Your task to perform on an android device: turn on improve location accuracy Image 0: 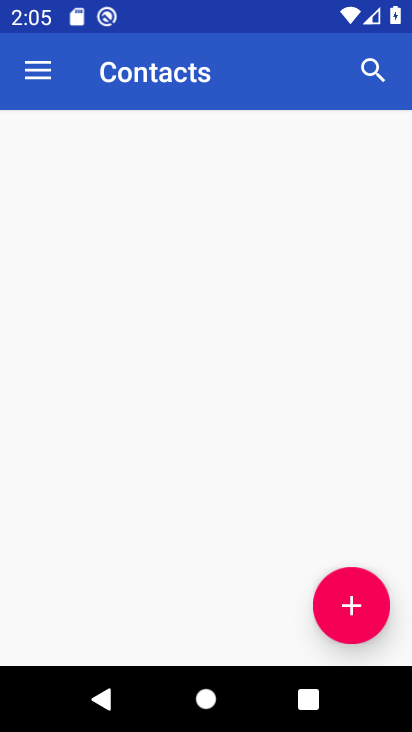
Step 0: press home button
Your task to perform on an android device: turn on improve location accuracy Image 1: 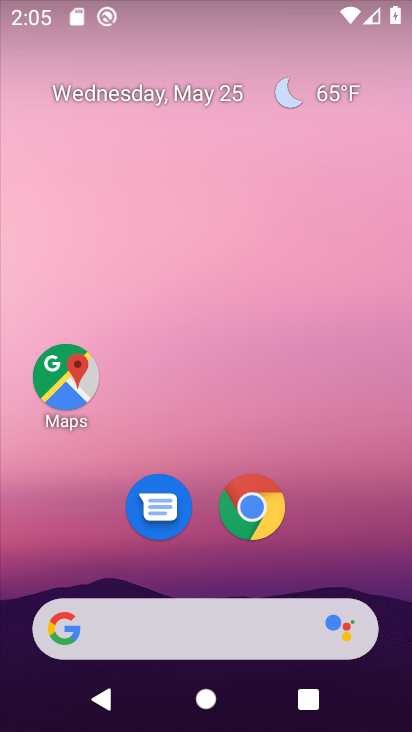
Step 1: drag from (54, 579) to (189, 105)
Your task to perform on an android device: turn on improve location accuracy Image 2: 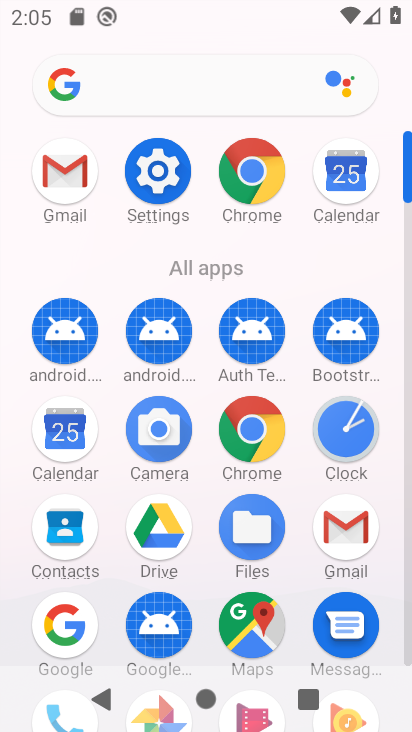
Step 2: drag from (156, 632) to (219, 354)
Your task to perform on an android device: turn on improve location accuracy Image 3: 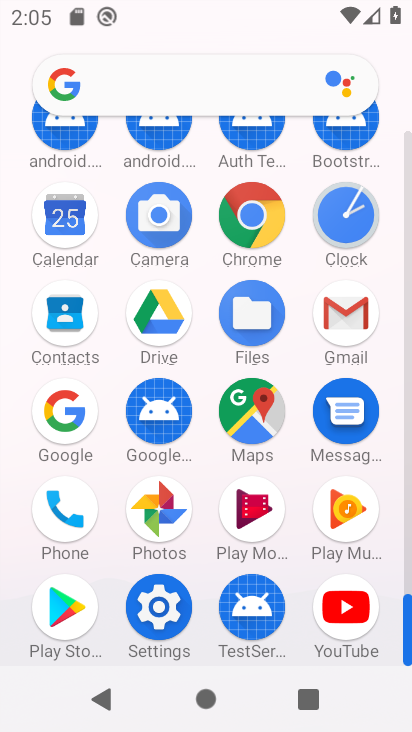
Step 3: click (180, 608)
Your task to perform on an android device: turn on improve location accuracy Image 4: 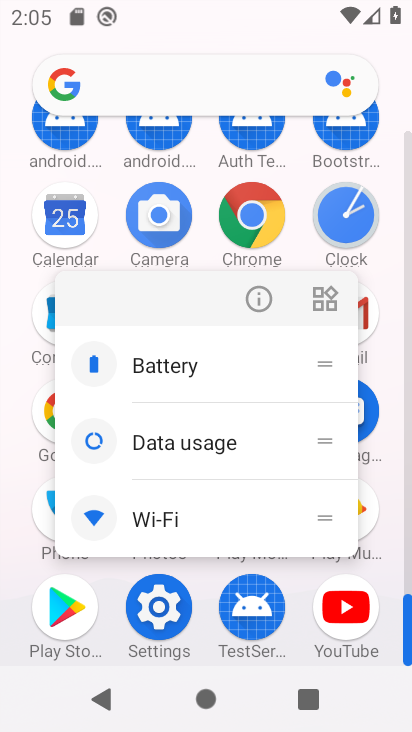
Step 4: click (168, 612)
Your task to perform on an android device: turn on improve location accuracy Image 5: 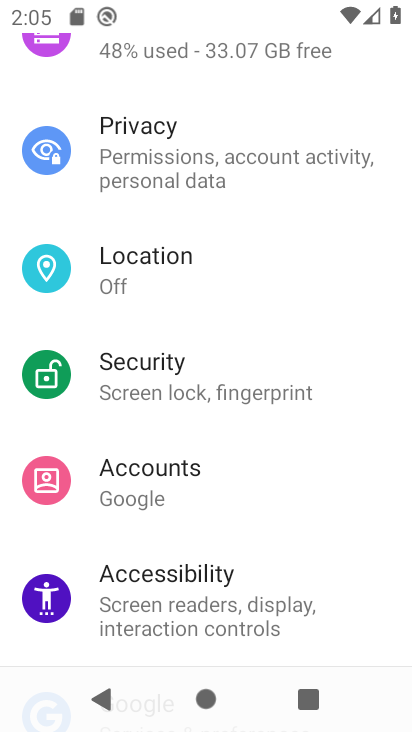
Step 5: click (164, 281)
Your task to perform on an android device: turn on improve location accuracy Image 6: 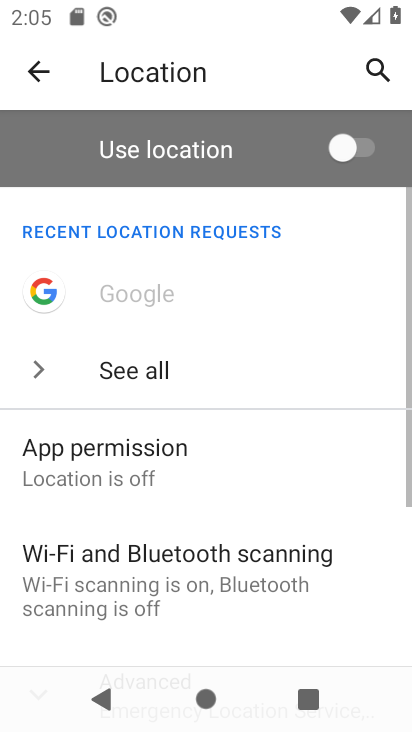
Step 6: drag from (189, 553) to (255, 232)
Your task to perform on an android device: turn on improve location accuracy Image 7: 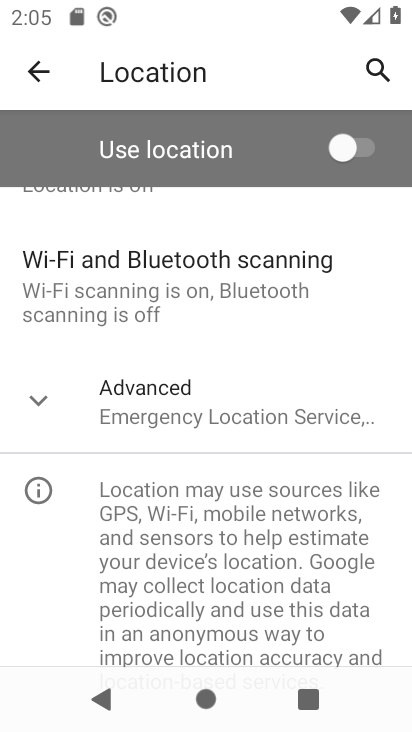
Step 7: click (164, 406)
Your task to perform on an android device: turn on improve location accuracy Image 8: 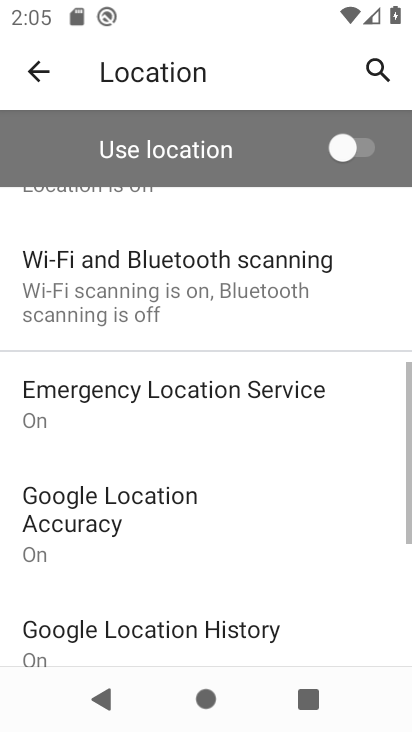
Step 8: task complete